Your task to perform on an android device: turn off notifications settings in the gmail app Image 0: 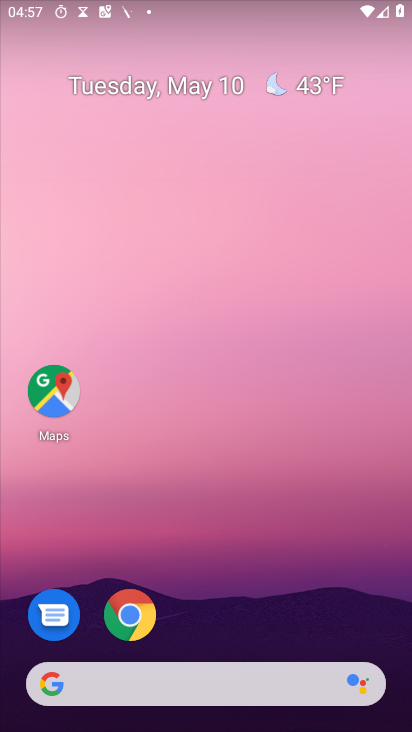
Step 0: drag from (286, 658) to (298, 88)
Your task to perform on an android device: turn off notifications settings in the gmail app Image 1: 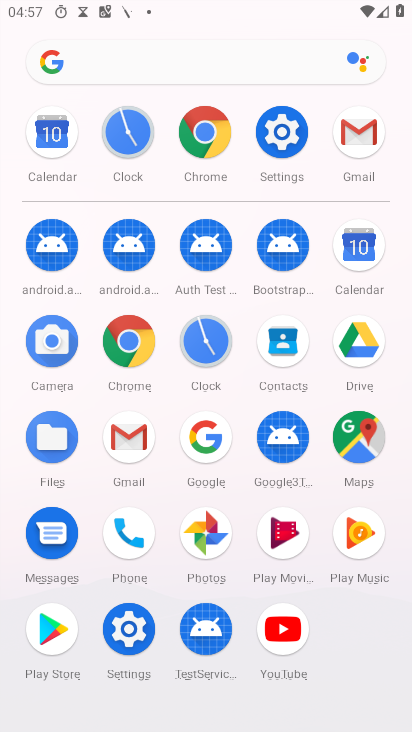
Step 1: click (143, 441)
Your task to perform on an android device: turn off notifications settings in the gmail app Image 2: 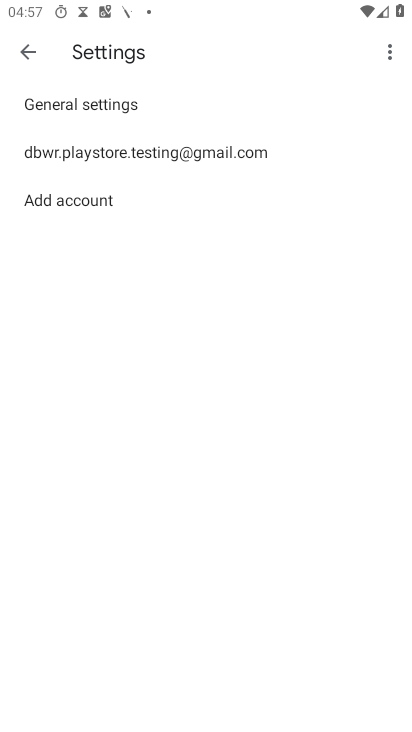
Step 2: press back button
Your task to perform on an android device: turn off notifications settings in the gmail app Image 3: 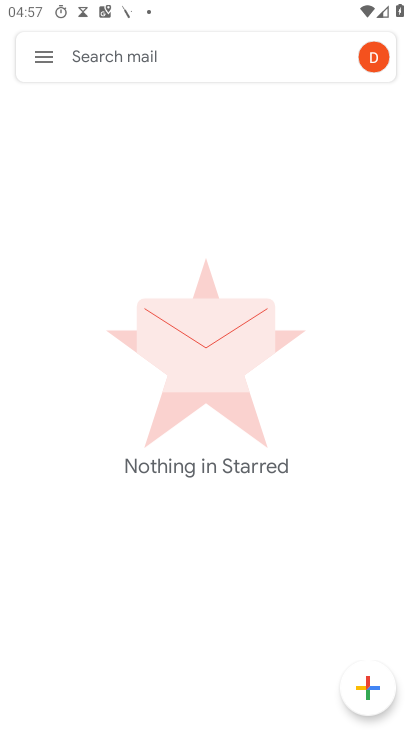
Step 3: click (47, 60)
Your task to perform on an android device: turn off notifications settings in the gmail app Image 4: 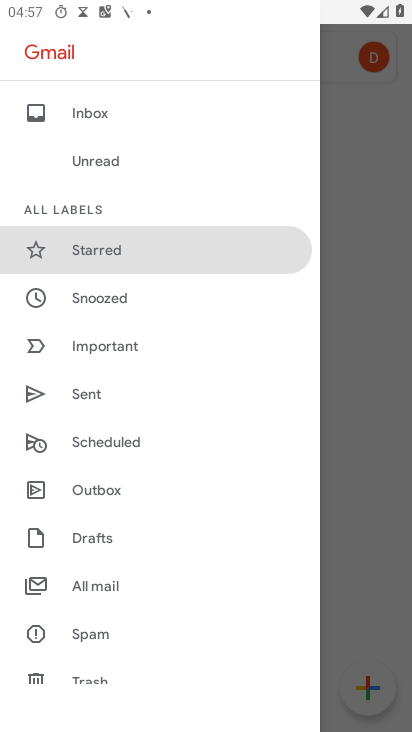
Step 4: drag from (132, 627) to (143, 174)
Your task to perform on an android device: turn off notifications settings in the gmail app Image 5: 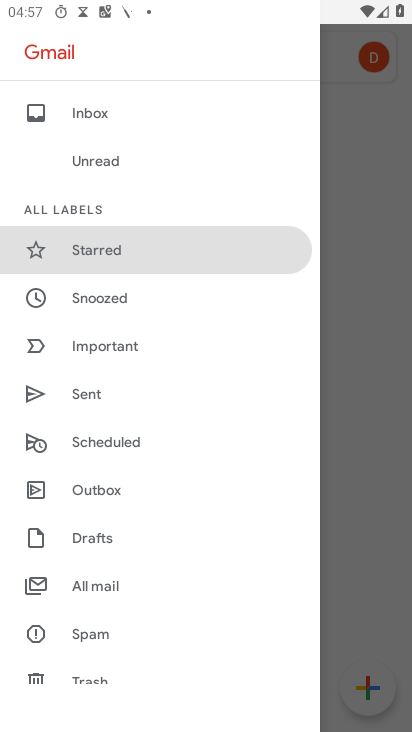
Step 5: drag from (184, 614) to (187, 242)
Your task to perform on an android device: turn off notifications settings in the gmail app Image 6: 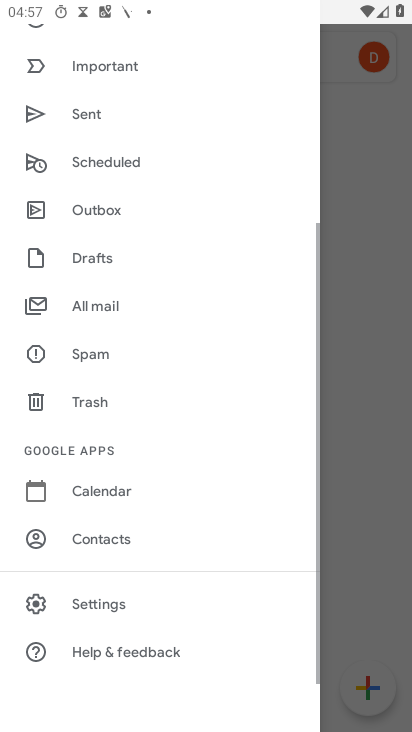
Step 6: click (154, 609)
Your task to perform on an android device: turn off notifications settings in the gmail app Image 7: 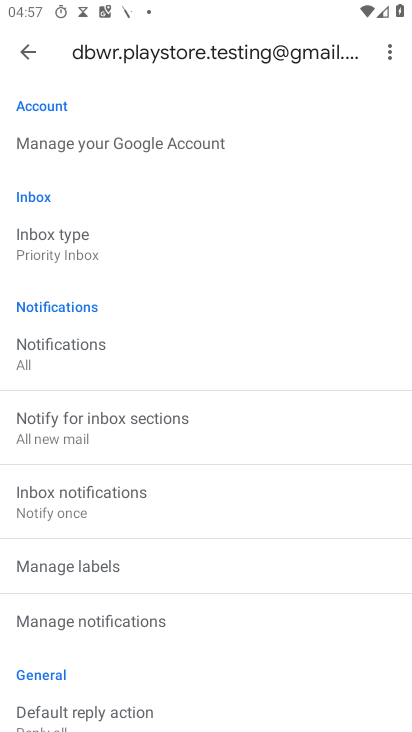
Step 7: click (136, 617)
Your task to perform on an android device: turn off notifications settings in the gmail app Image 8: 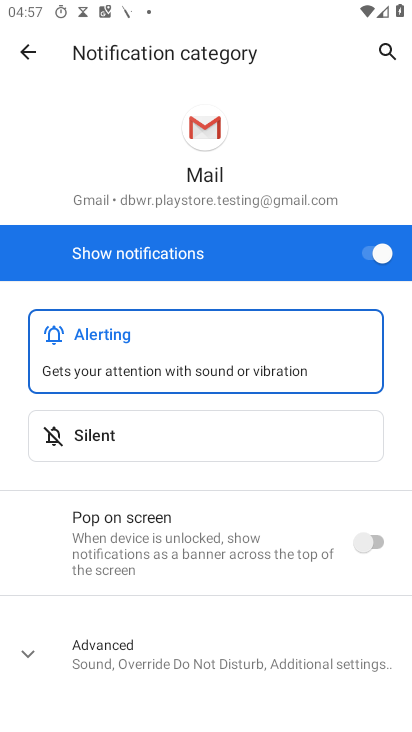
Step 8: click (366, 260)
Your task to perform on an android device: turn off notifications settings in the gmail app Image 9: 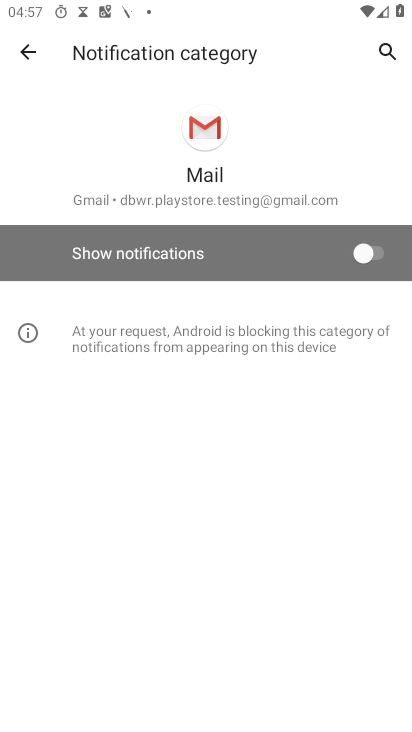
Step 9: task complete